Your task to perform on an android device: Open Google Chrome and open the bookmarks view Image 0: 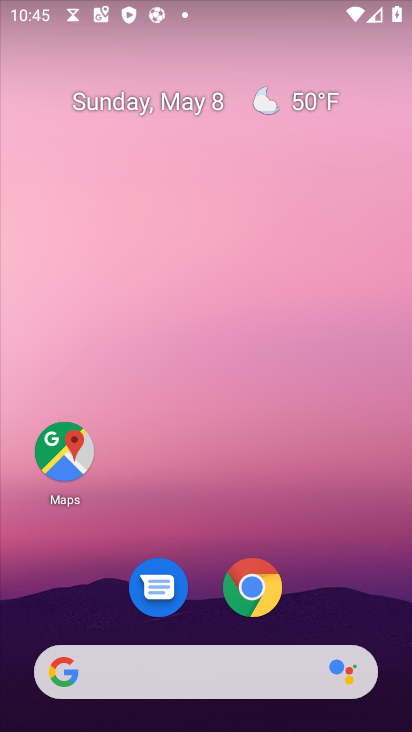
Step 0: click (269, 587)
Your task to perform on an android device: Open Google Chrome and open the bookmarks view Image 1: 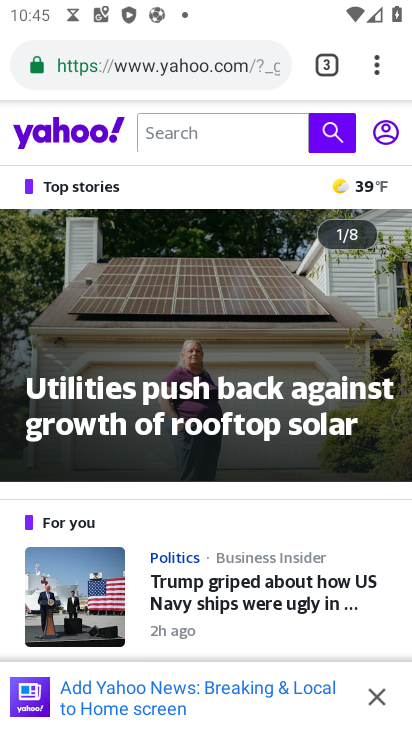
Step 1: task complete